Your task to perform on an android device: Open network settings Image 0: 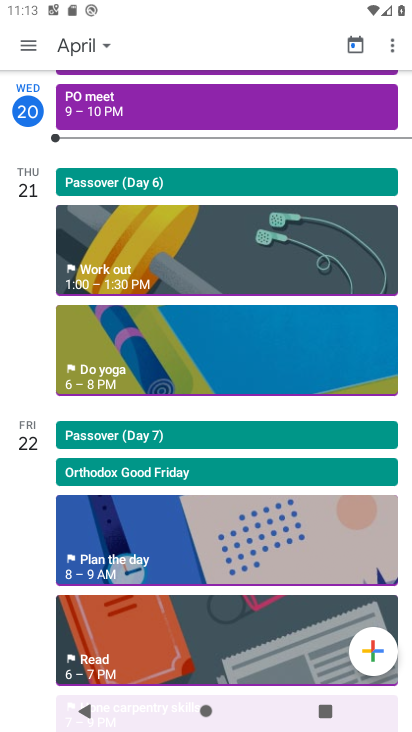
Step 0: press home button
Your task to perform on an android device: Open network settings Image 1: 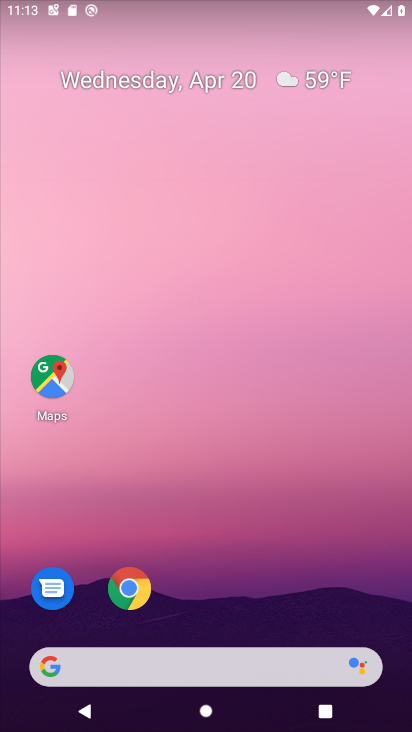
Step 1: drag from (168, 610) to (245, 27)
Your task to perform on an android device: Open network settings Image 2: 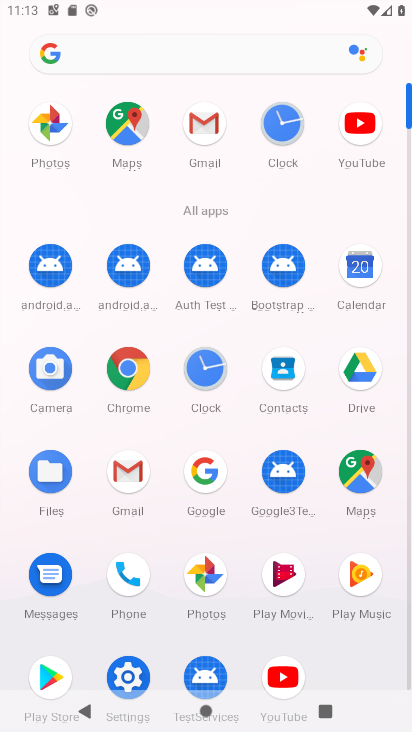
Step 2: click (137, 673)
Your task to perform on an android device: Open network settings Image 3: 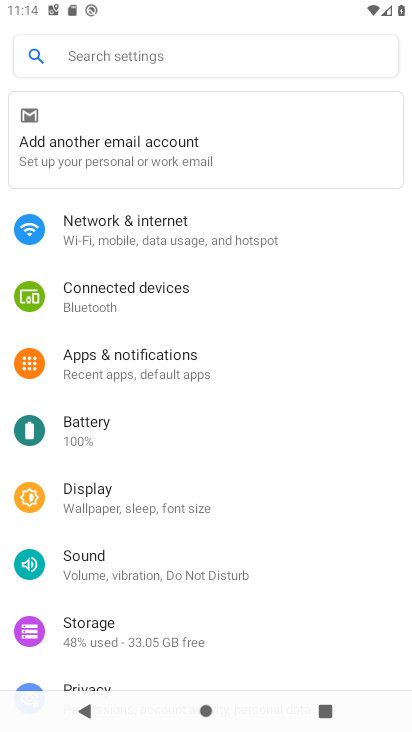
Step 3: click (169, 251)
Your task to perform on an android device: Open network settings Image 4: 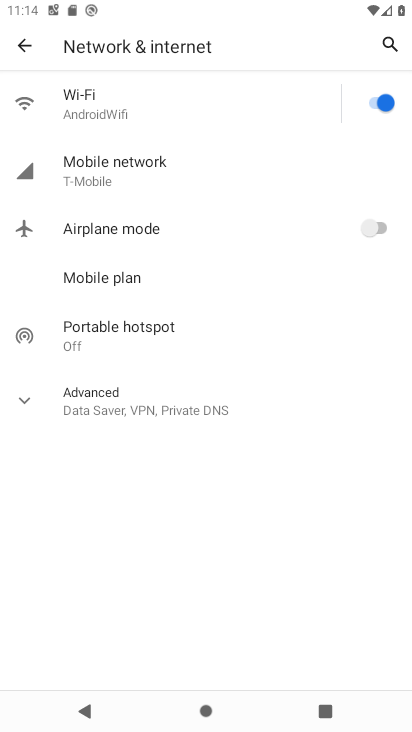
Step 4: click (226, 155)
Your task to perform on an android device: Open network settings Image 5: 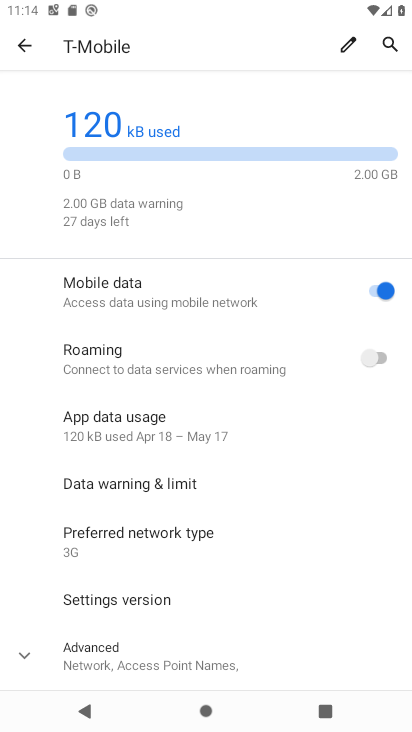
Step 5: task complete